Your task to perform on an android device: What's the weather? Image 0: 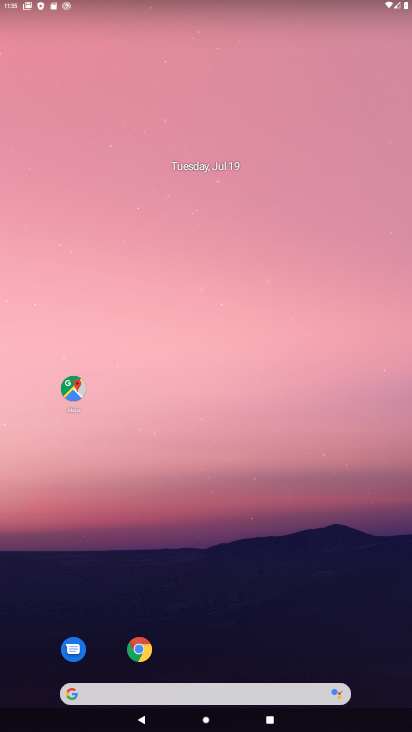
Step 0: click (185, 691)
Your task to perform on an android device: What's the weather? Image 1: 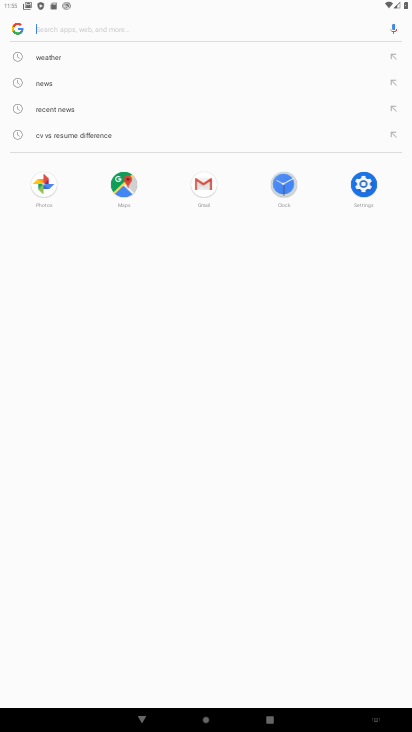
Step 1: click (66, 53)
Your task to perform on an android device: What's the weather? Image 2: 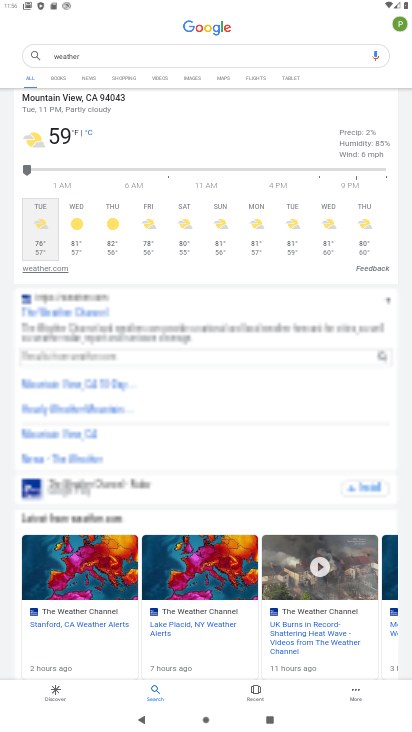
Step 2: task complete